Your task to perform on an android device: Search for pizza restaurants on Maps Image 0: 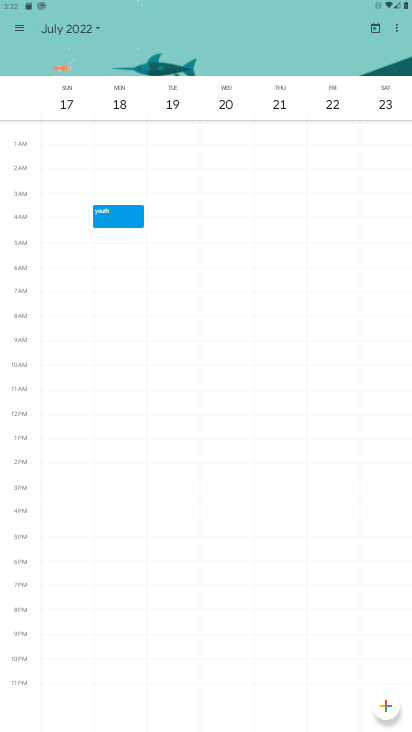
Step 0: press home button
Your task to perform on an android device: Search for pizza restaurants on Maps Image 1: 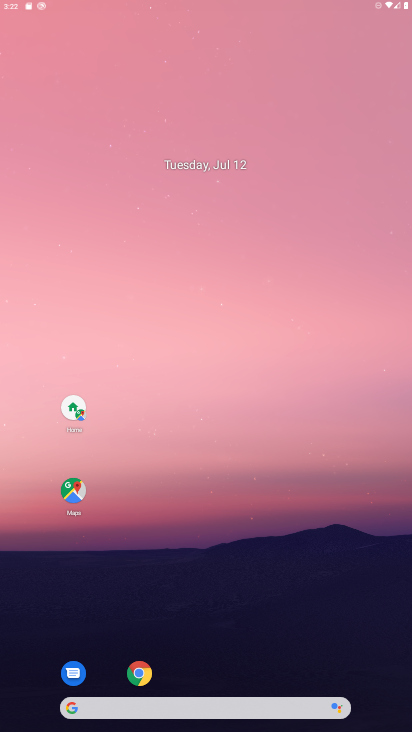
Step 1: drag from (235, 631) to (233, 281)
Your task to perform on an android device: Search for pizza restaurants on Maps Image 2: 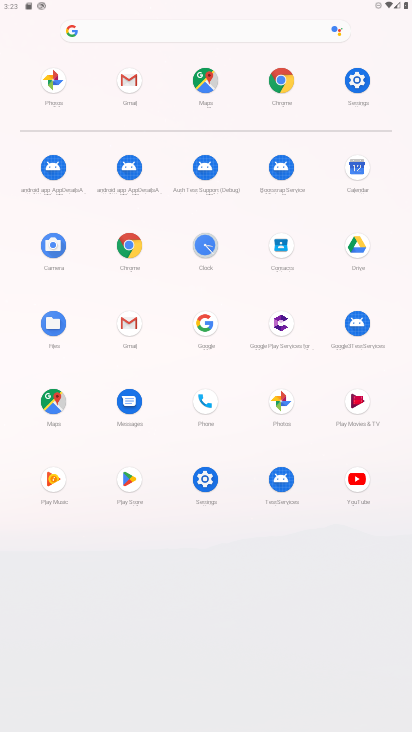
Step 2: click (56, 396)
Your task to perform on an android device: Search for pizza restaurants on Maps Image 3: 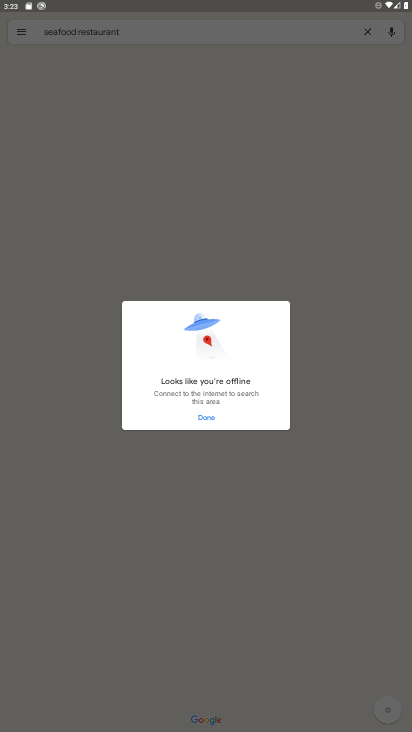
Step 3: click (207, 420)
Your task to perform on an android device: Search for pizza restaurants on Maps Image 4: 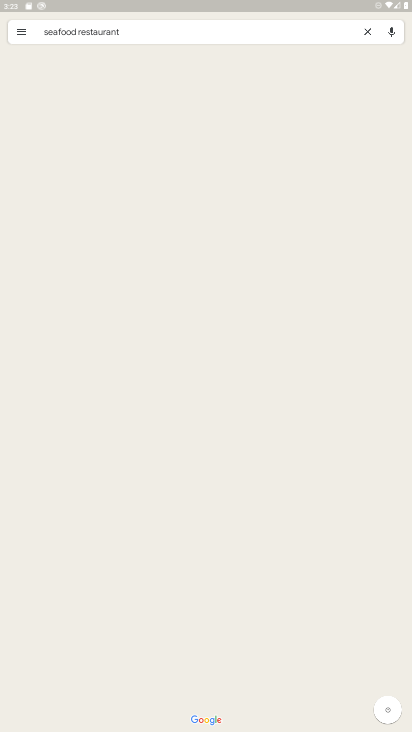
Step 4: click (362, 33)
Your task to perform on an android device: Search for pizza restaurants on Maps Image 5: 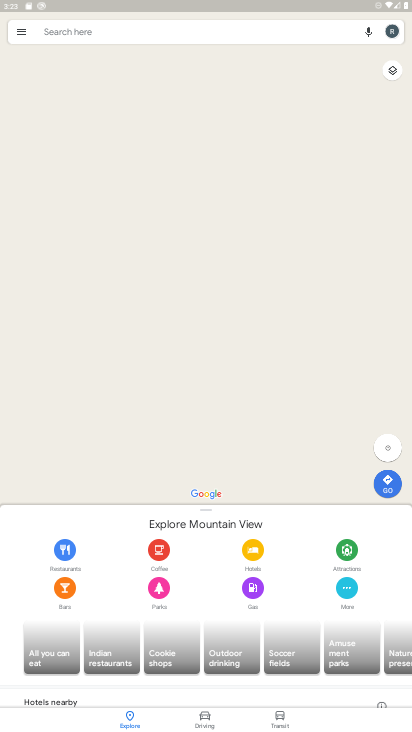
Step 5: click (207, 31)
Your task to perform on an android device: Search for pizza restaurants on Maps Image 6: 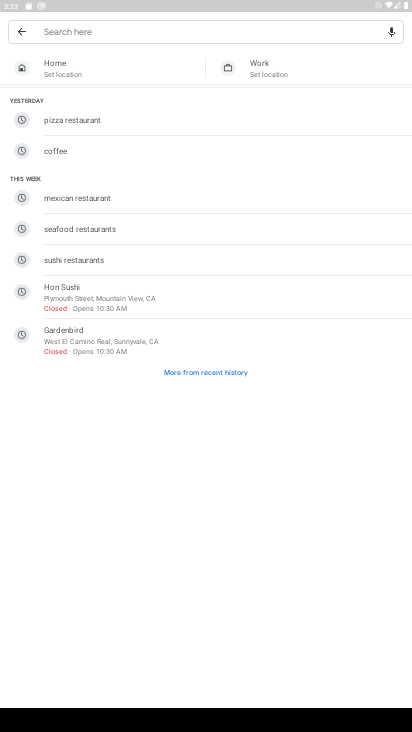
Step 6: click (70, 118)
Your task to perform on an android device: Search for pizza restaurants on Maps Image 7: 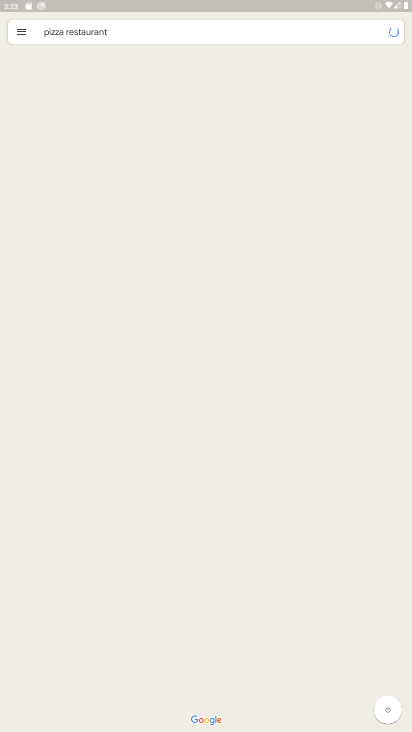
Step 7: task complete